Your task to perform on an android device: Go to accessibility settings Image 0: 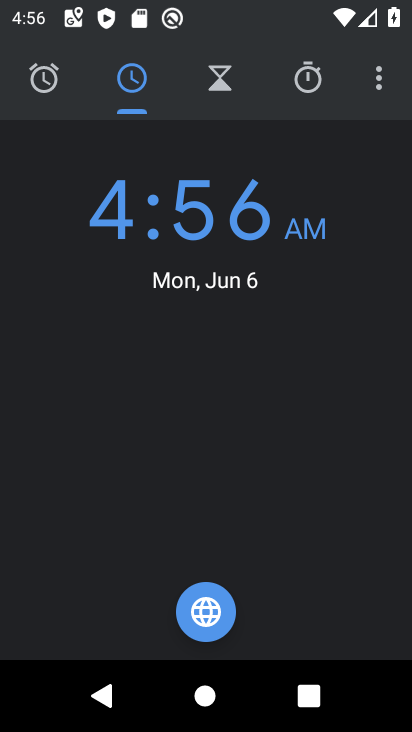
Step 0: press home button
Your task to perform on an android device: Go to accessibility settings Image 1: 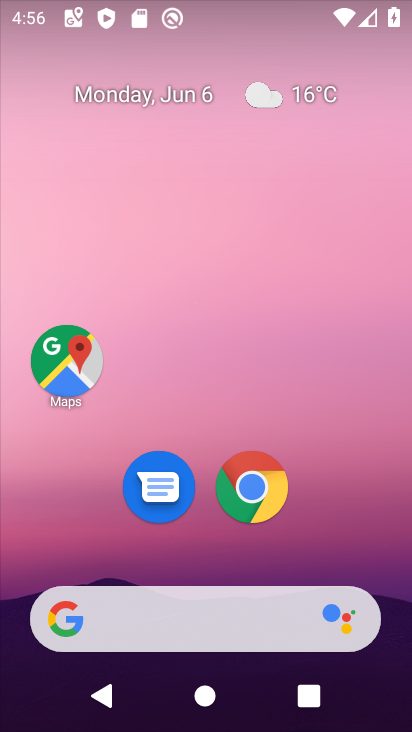
Step 1: drag from (308, 561) to (301, 3)
Your task to perform on an android device: Go to accessibility settings Image 2: 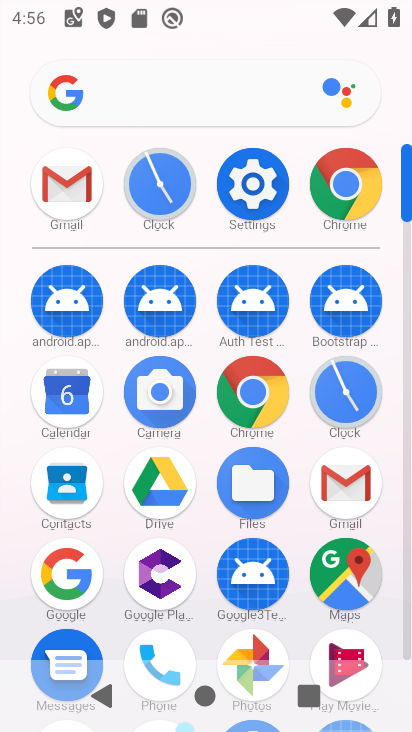
Step 2: click (252, 173)
Your task to perform on an android device: Go to accessibility settings Image 3: 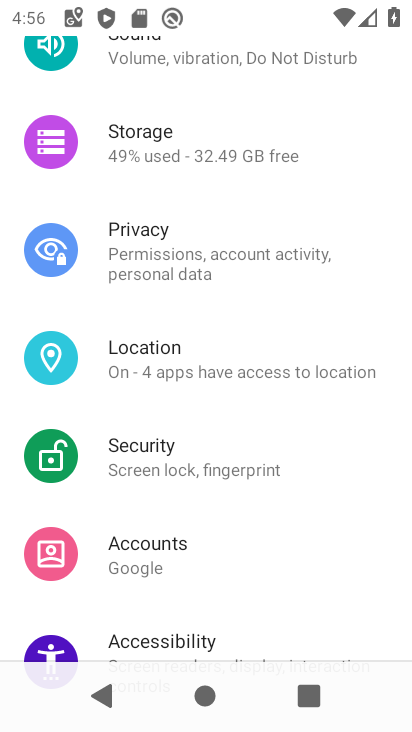
Step 3: drag from (241, 547) to (244, 306)
Your task to perform on an android device: Go to accessibility settings Image 4: 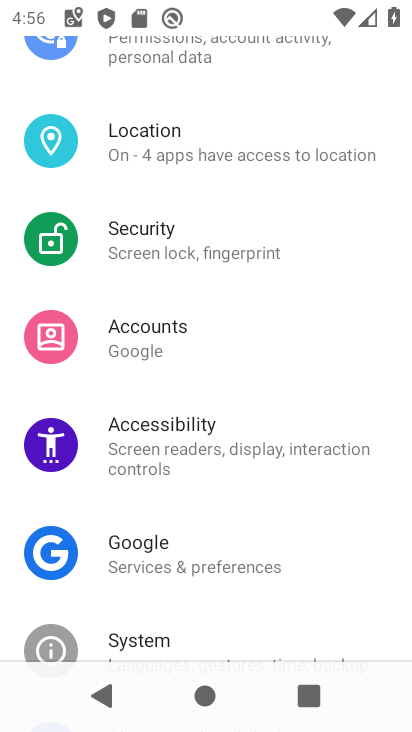
Step 4: click (240, 430)
Your task to perform on an android device: Go to accessibility settings Image 5: 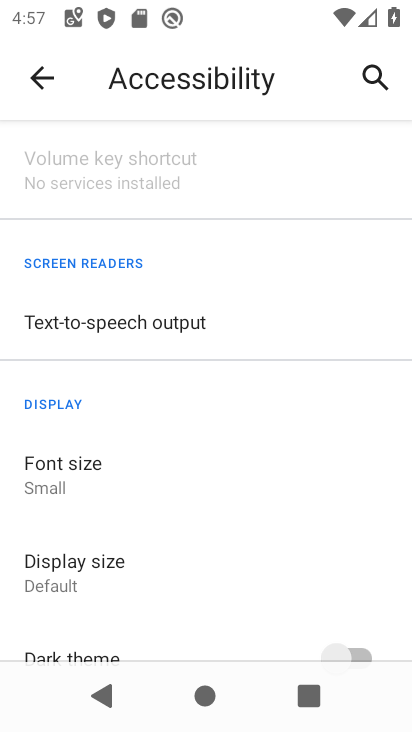
Step 5: task complete